Your task to perform on an android device: Open Chrome and go to the settings page Image 0: 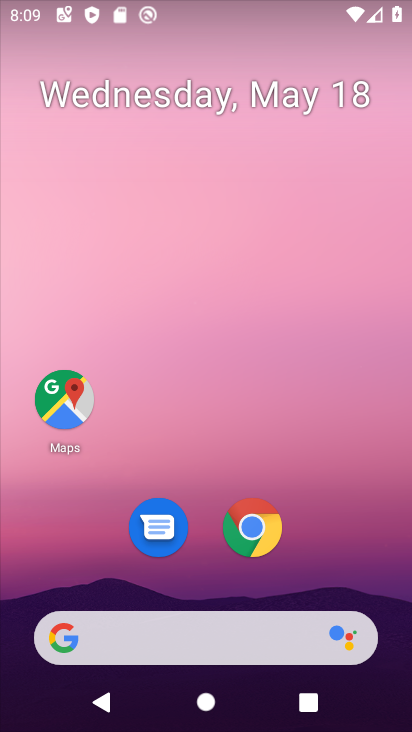
Step 0: drag from (236, 630) to (103, 169)
Your task to perform on an android device: Open Chrome and go to the settings page Image 1: 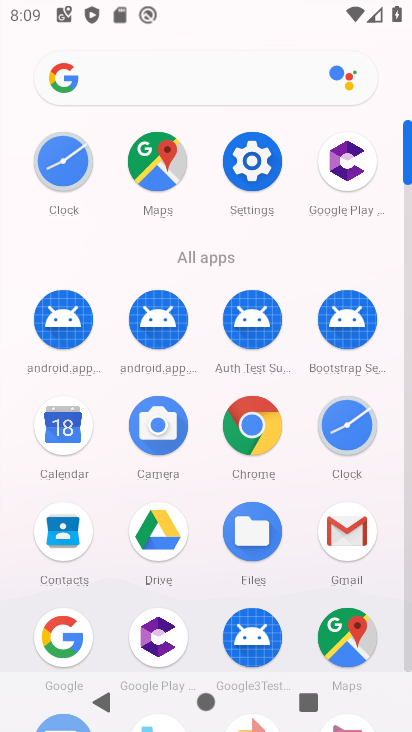
Step 1: click (249, 165)
Your task to perform on an android device: Open Chrome and go to the settings page Image 2: 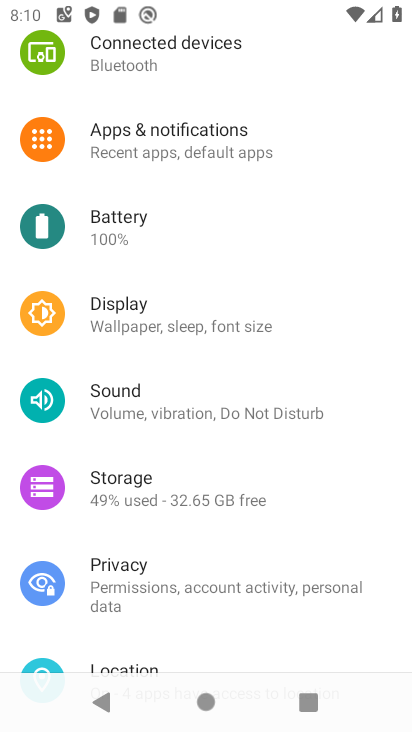
Step 2: press back button
Your task to perform on an android device: Open Chrome and go to the settings page Image 3: 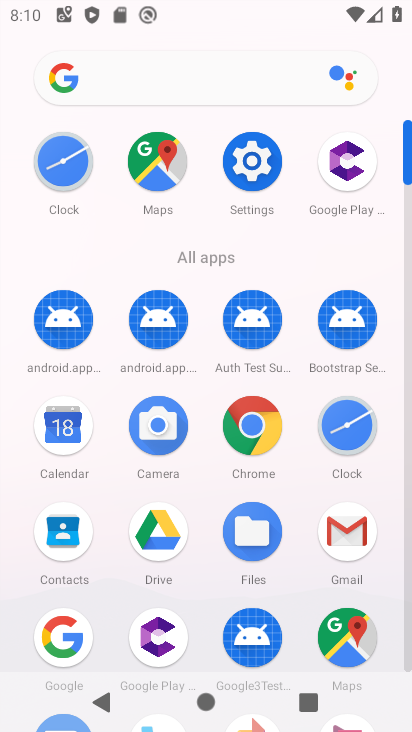
Step 3: click (252, 427)
Your task to perform on an android device: Open Chrome and go to the settings page Image 4: 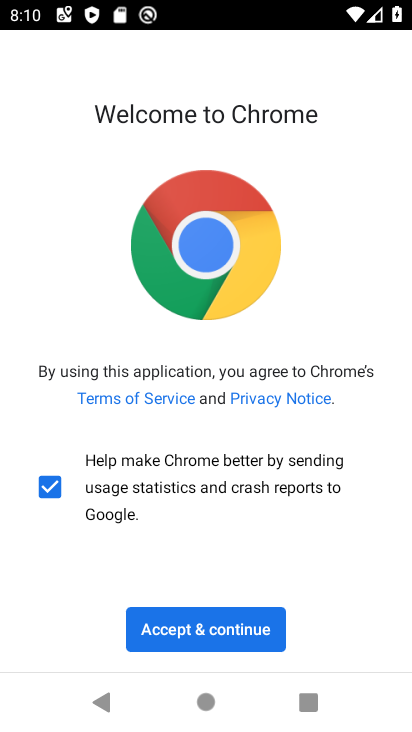
Step 4: click (217, 625)
Your task to perform on an android device: Open Chrome and go to the settings page Image 5: 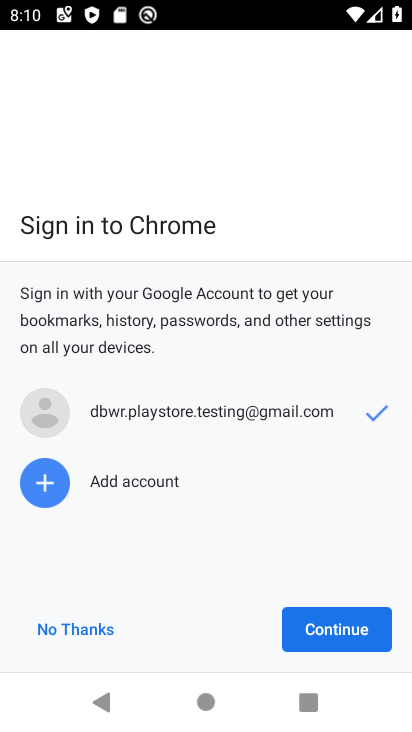
Step 5: click (315, 613)
Your task to perform on an android device: Open Chrome and go to the settings page Image 6: 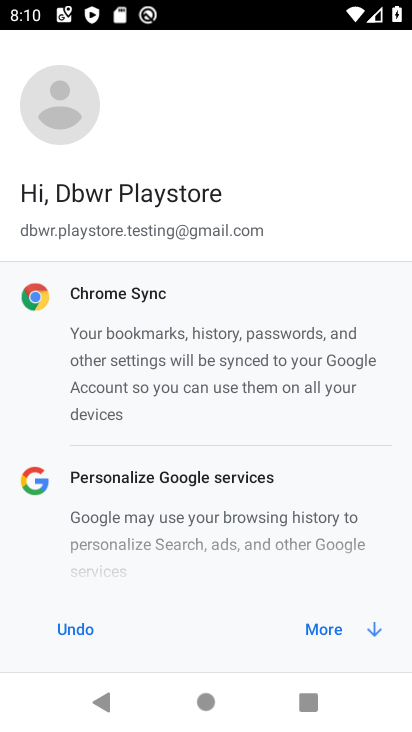
Step 6: click (322, 638)
Your task to perform on an android device: Open Chrome and go to the settings page Image 7: 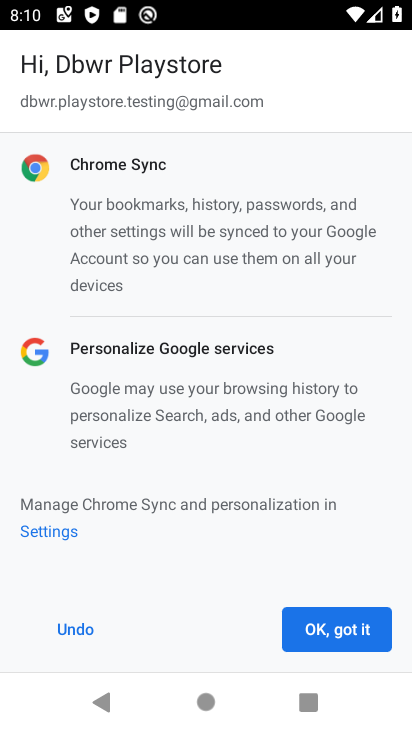
Step 7: click (329, 632)
Your task to perform on an android device: Open Chrome and go to the settings page Image 8: 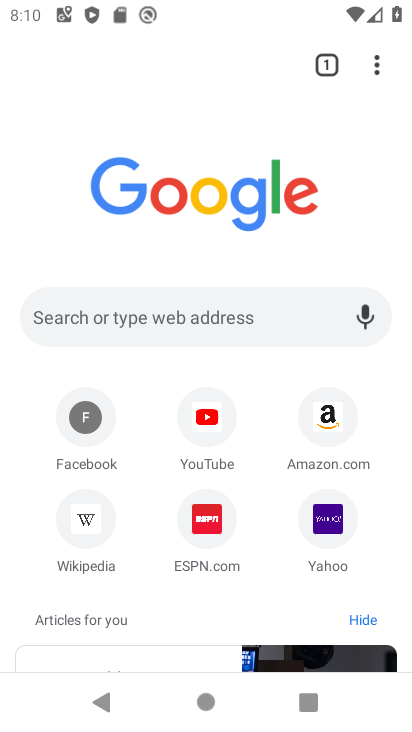
Step 8: press back button
Your task to perform on an android device: Open Chrome and go to the settings page Image 9: 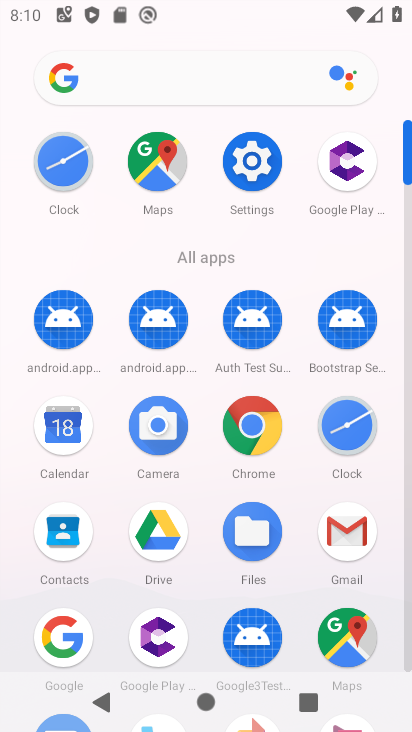
Step 9: click (236, 163)
Your task to perform on an android device: Open Chrome and go to the settings page Image 10: 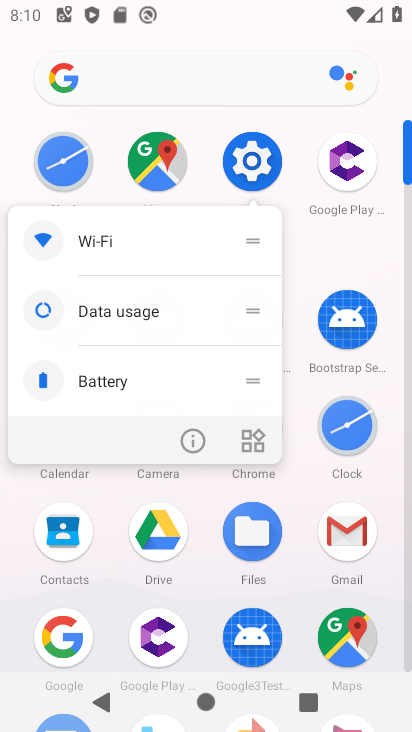
Step 10: click (237, 162)
Your task to perform on an android device: Open Chrome and go to the settings page Image 11: 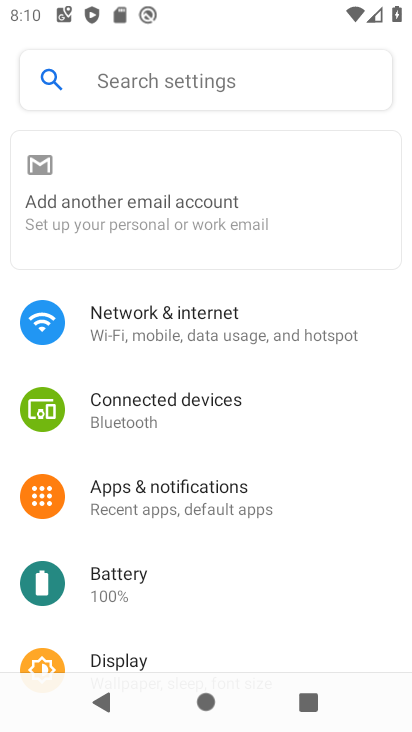
Step 11: click (241, 168)
Your task to perform on an android device: Open Chrome and go to the settings page Image 12: 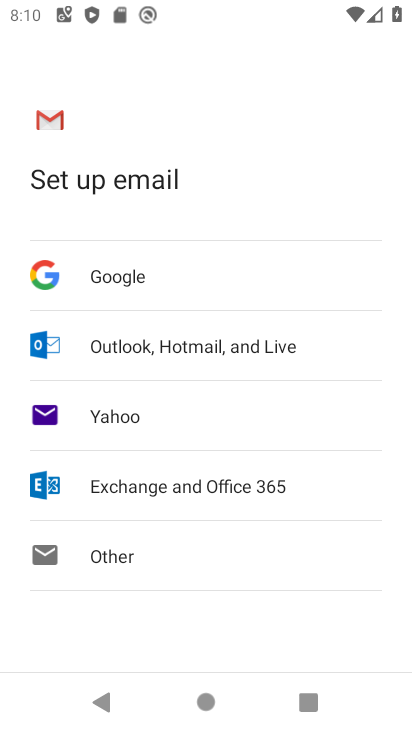
Step 12: press back button
Your task to perform on an android device: Open Chrome and go to the settings page Image 13: 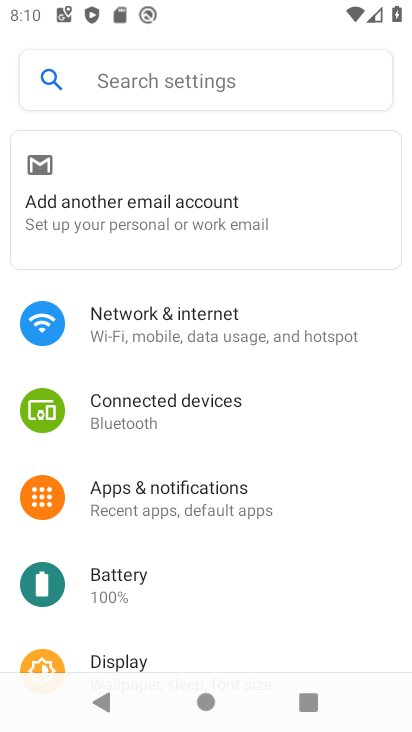
Step 13: press home button
Your task to perform on an android device: Open Chrome and go to the settings page Image 14: 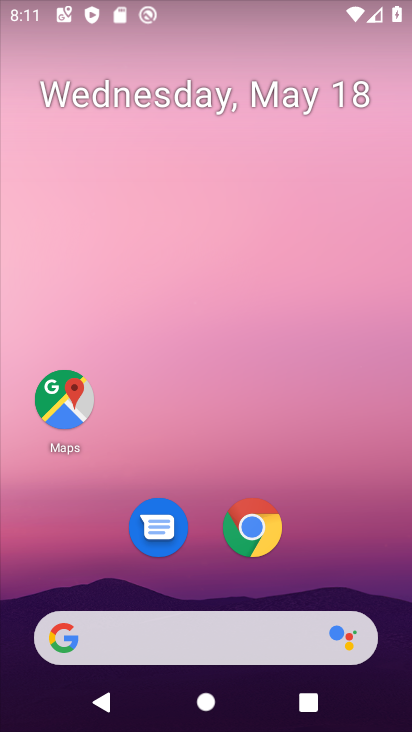
Step 14: drag from (327, 651) to (123, 17)
Your task to perform on an android device: Open Chrome and go to the settings page Image 15: 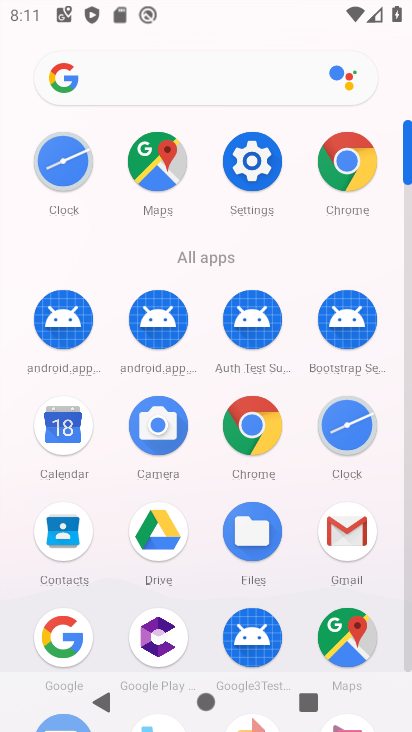
Step 15: drag from (245, 464) to (108, 8)
Your task to perform on an android device: Open Chrome and go to the settings page Image 16: 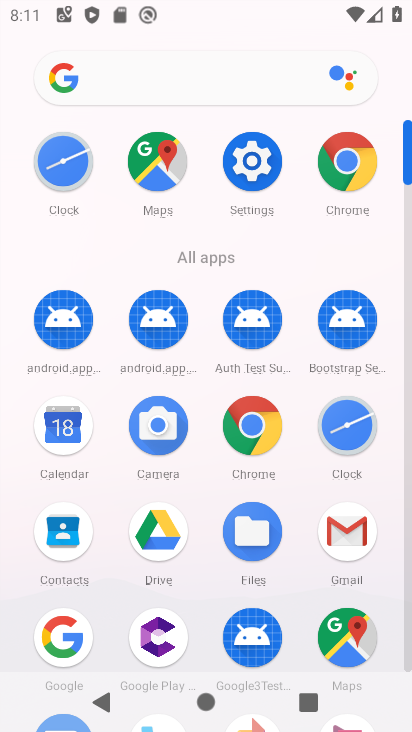
Step 16: drag from (262, 535) to (30, 94)
Your task to perform on an android device: Open Chrome and go to the settings page Image 17: 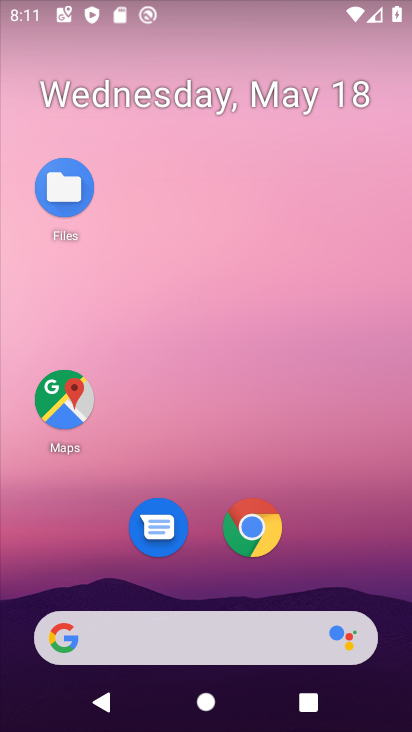
Step 17: drag from (344, 610) to (121, 68)
Your task to perform on an android device: Open Chrome and go to the settings page Image 18: 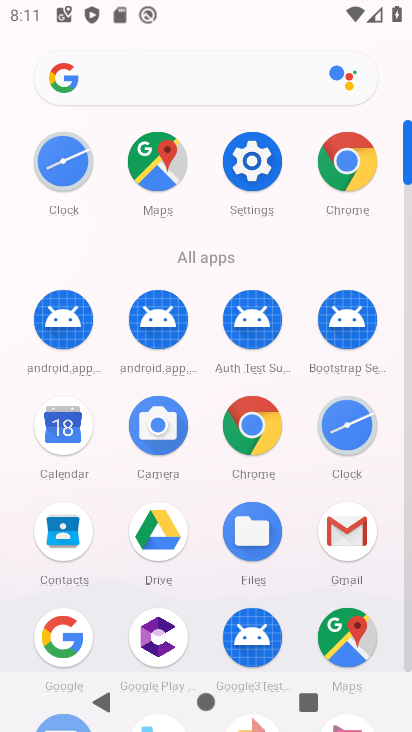
Step 18: click (344, 360)
Your task to perform on an android device: Open Chrome and go to the settings page Image 19: 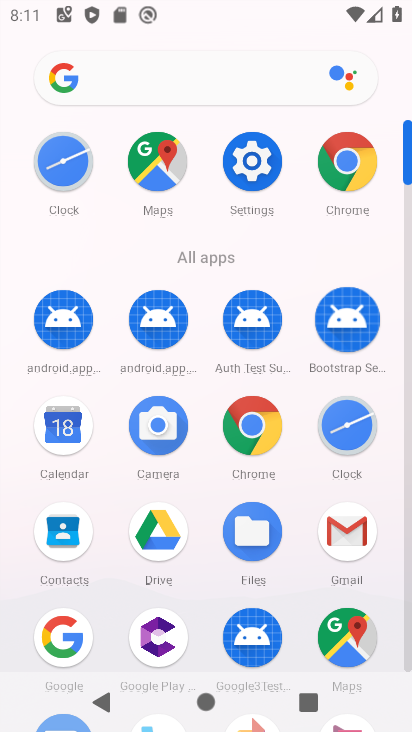
Step 19: click (342, 353)
Your task to perform on an android device: Open Chrome and go to the settings page Image 20: 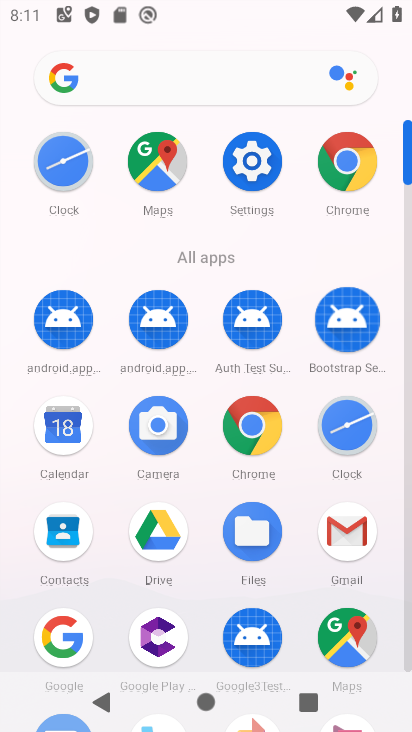
Step 20: click (353, 161)
Your task to perform on an android device: Open Chrome and go to the settings page Image 21: 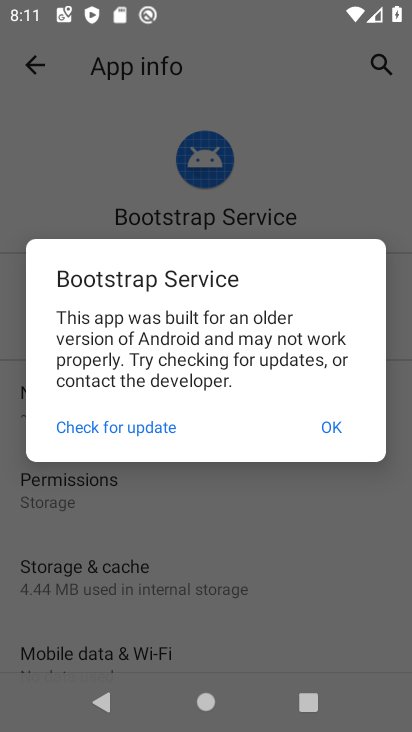
Step 21: click (335, 420)
Your task to perform on an android device: Open Chrome and go to the settings page Image 22: 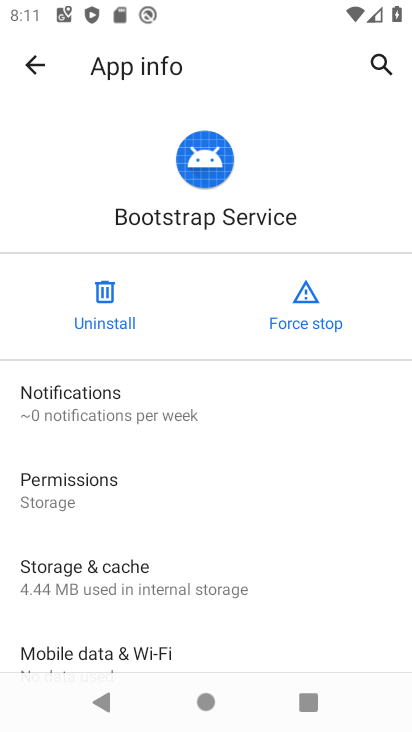
Step 22: click (21, 55)
Your task to perform on an android device: Open Chrome and go to the settings page Image 23: 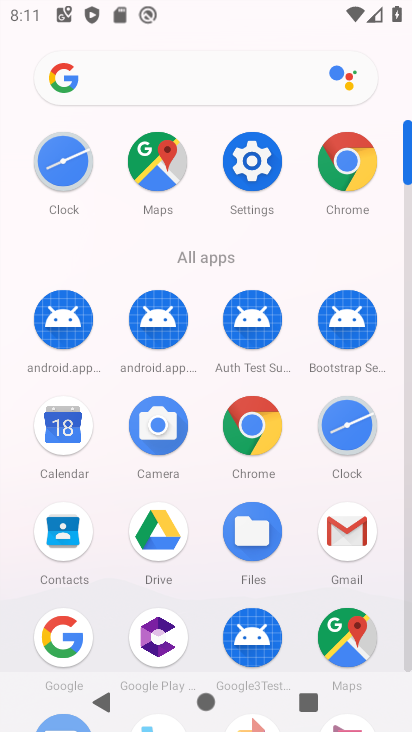
Step 23: click (345, 162)
Your task to perform on an android device: Open Chrome and go to the settings page Image 24: 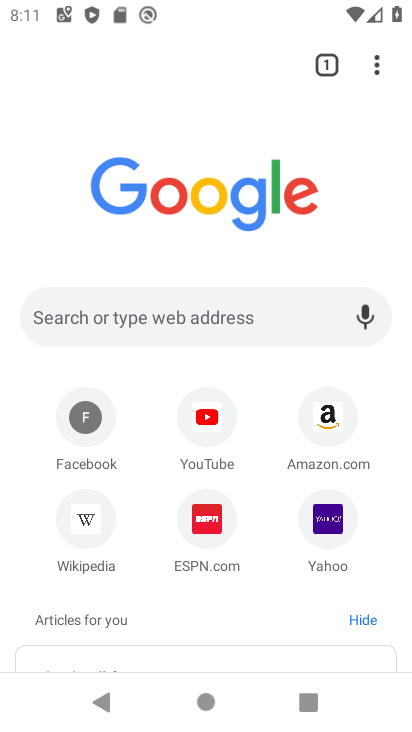
Step 24: drag from (372, 59) to (122, 546)
Your task to perform on an android device: Open Chrome and go to the settings page Image 25: 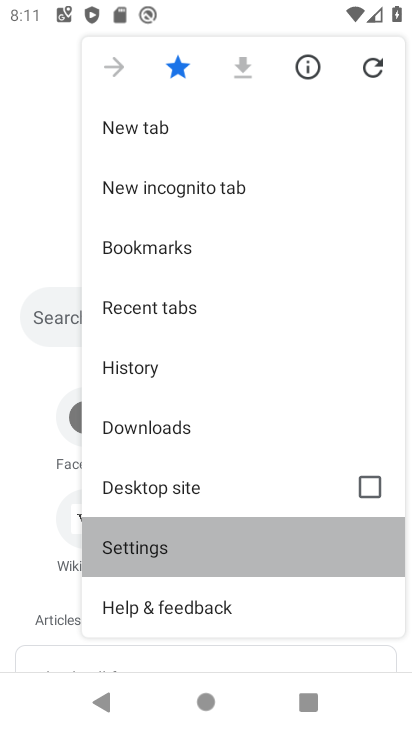
Step 25: click (121, 541)
Your task to perform on an android device: Open Chrome and go to the settings page Image 26: 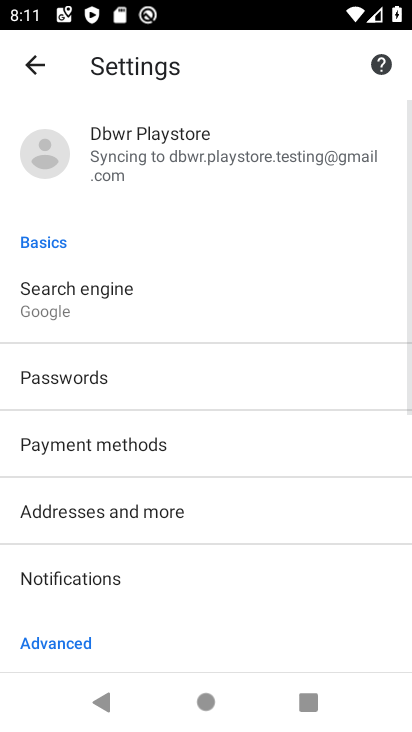
Step 26: drag from (172, 506) to (146, 163)
Your task to perform on an android device: Open Chrome and go to the settings page Image 27: 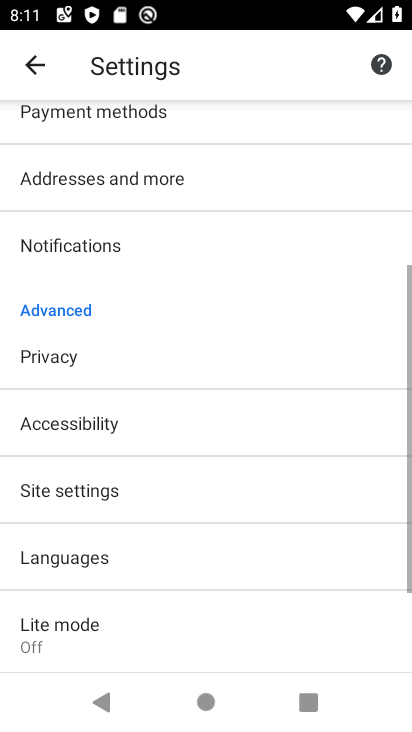
Step 27: drag from (189, 443) to (118, 42)
Your task to perform on an android device: Open Chrome and go to the settings page Image 28: 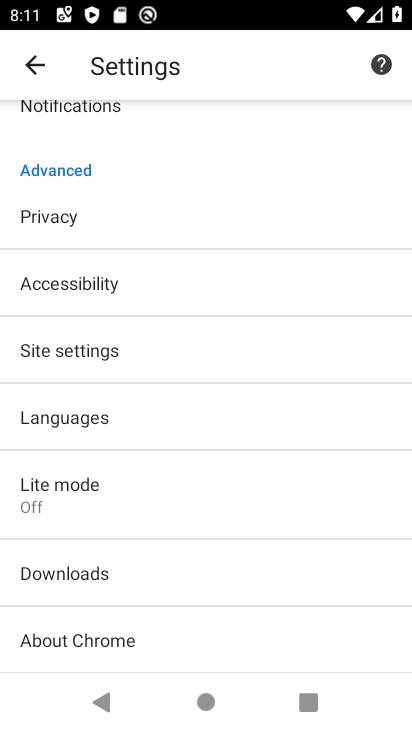
Step 28: click (63, 353)
Your task to perform on an android device: Open Chrome and go to the settings page Image 29: 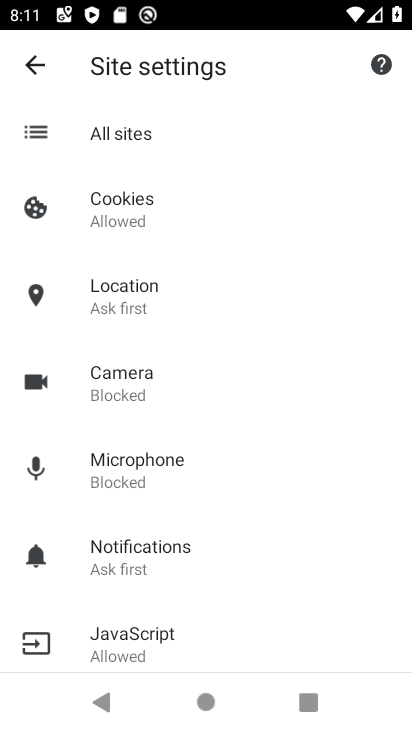
Step 29: task complete